Your task to perform on an android device: check battery use Image 0: 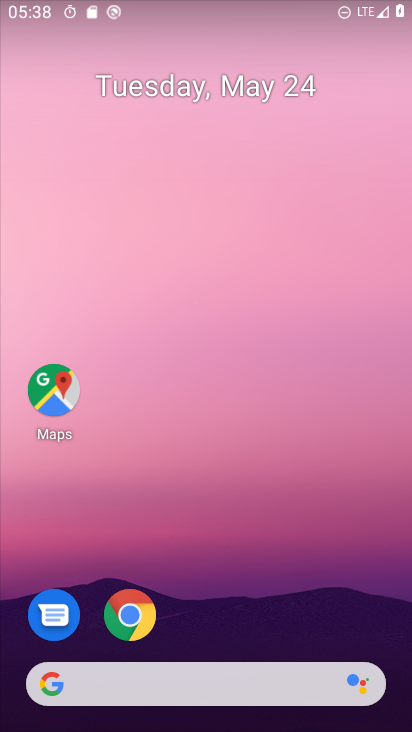
Step 0: drag from (218, 648) to (302, 51)
Your task to perform on an android device: check battery use Image 1: 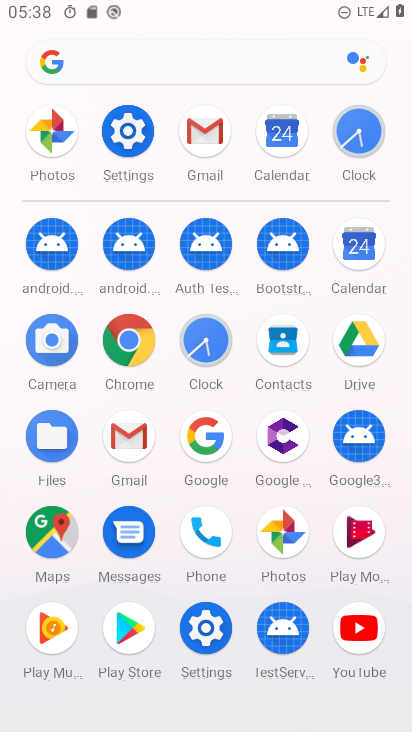
Step 1: click (129, 127)
Your task to perform on an android device: check battery use Image 2: 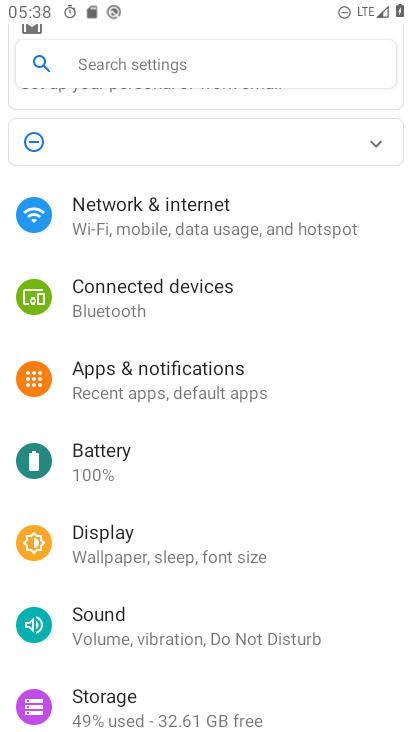
Step 2: click (112, 457)
Your task to perform on an android device: check battery use Image 3: 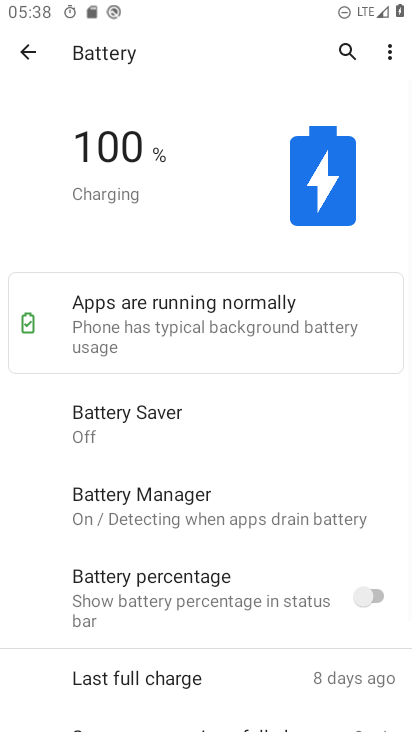
Step 3: click (392, 56)
Your task to perform on an android device: check battery use Image 4: 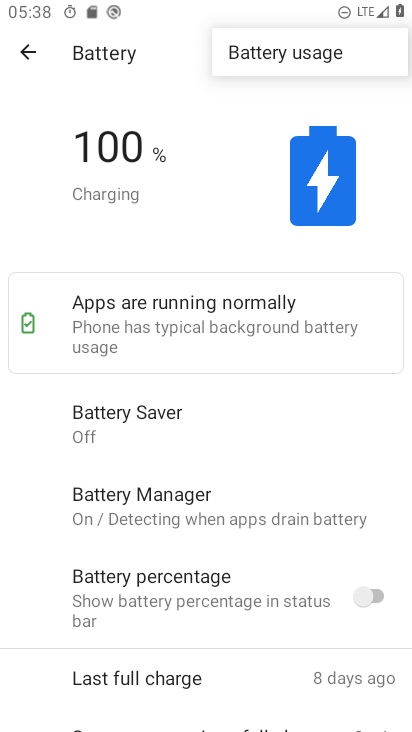
Step 4: click (285, 58)
Your task to perform on an android device: check battery use Image 5: 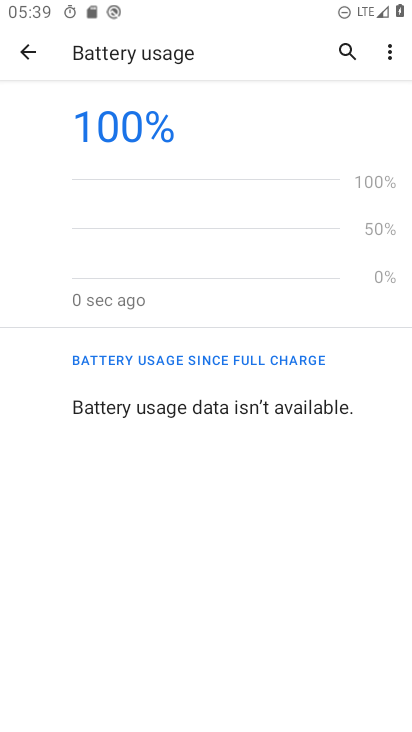
Step 5: task complete